Your task to perform on an android device: Open network settings Image 0: 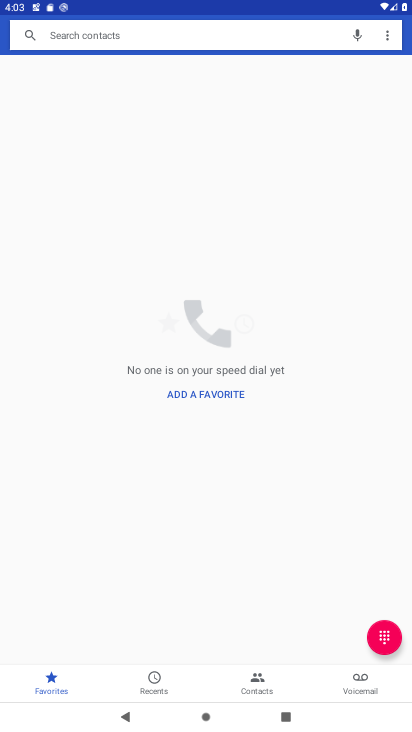
Step 0: press home button
Your task to perform on an android device: Open network settings Image 1: 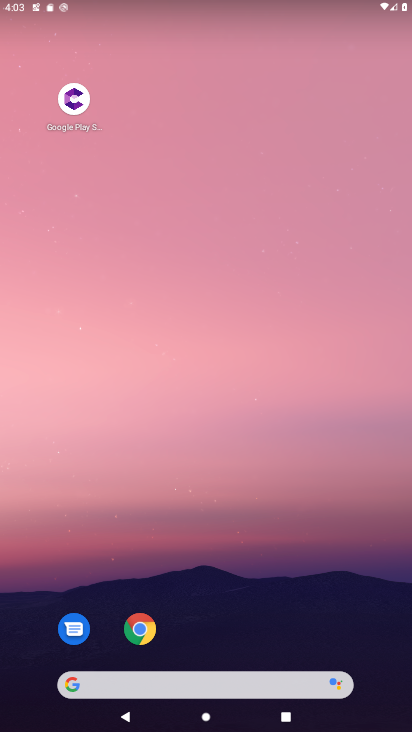
Step 1: drag from (282, 616) to (312, 143)
Your task to perform on an android device: Open network settings Image 2: 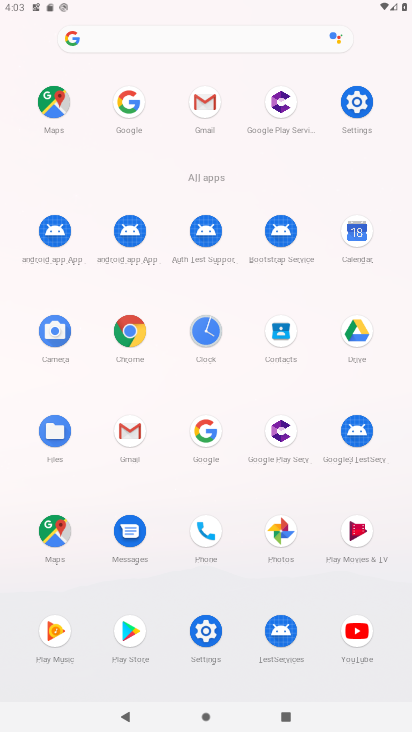
Step 2: click (345, 109)
Your task to perform on an android device: Open network settings Image 3: 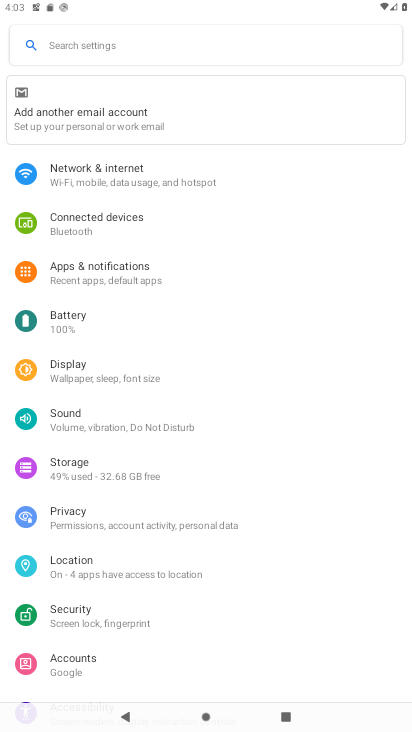
Step 3: click (144, 172)
Your task to perform on an android device: Open network settings Image 4: 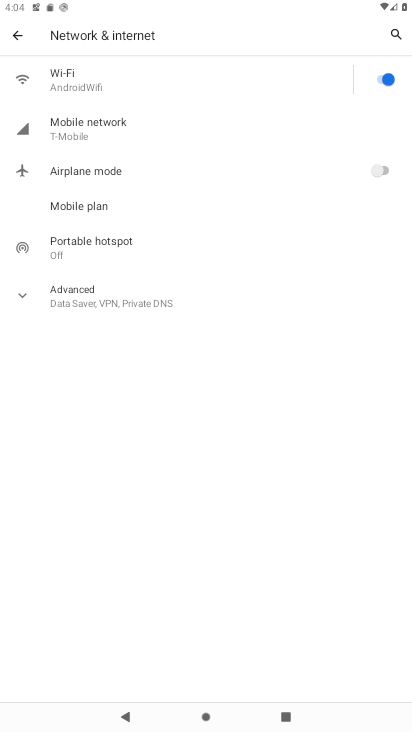
Step 4: task complete